Your task to perform on an android device: turn on the 12-hour format for clock Image 0: 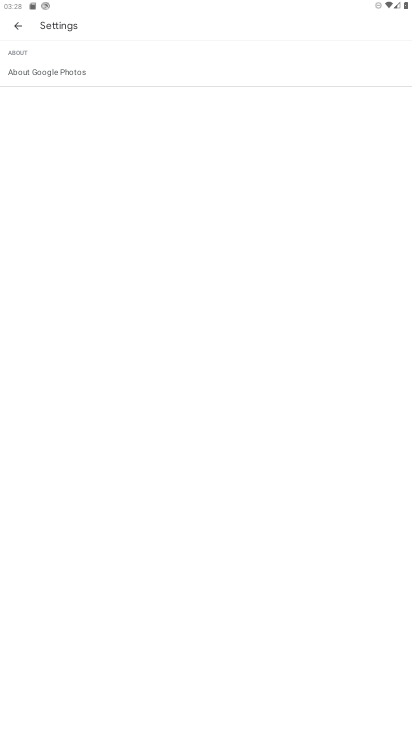
Step 0: press home button
Your task to perform on an android device: turn on the 12-hour format for clock Image 1: 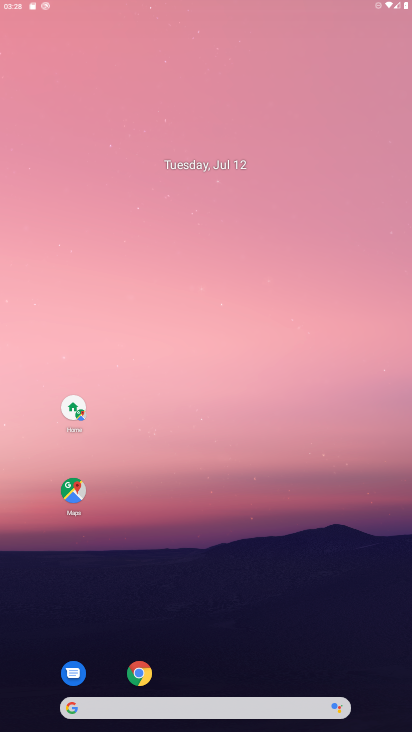
Step 1: drag from (228, 590) to (230, 279)
Your task to perform on an android device: turn on the 12-hour format for clock Image 2: 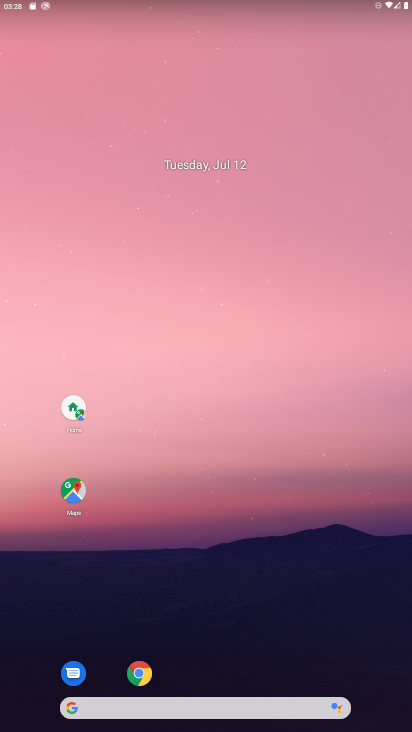
Step 2: drag from (200, 608) to (214, 314)
Your task to perform on an android device: turn on the 12-hour format for clock Image 3: 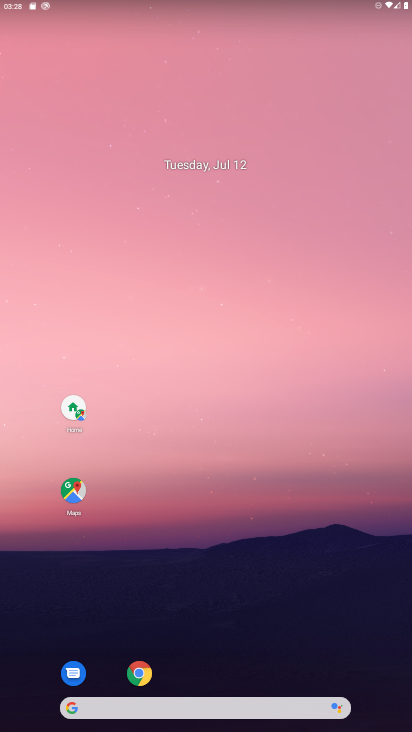
Step 3: drag from (244, 628) to (244, 252)
Your task to perform on an android device: turn on the 12-hour format for clock Image 4: 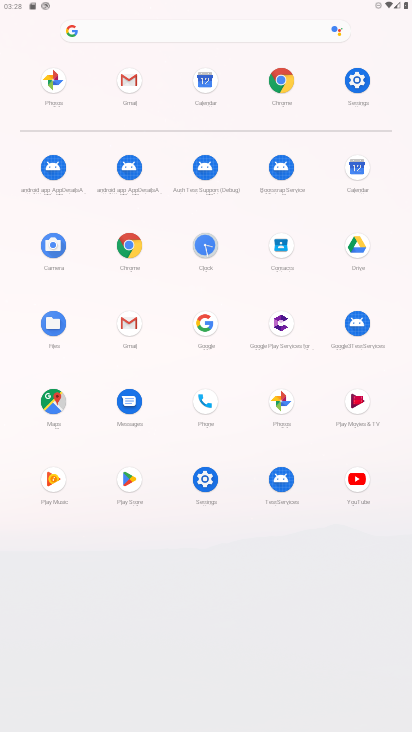
Step 4: drag from (349, 164) to (19, 250)
Your task to perform on an android device: turn on the 12-hour format for clock Image 5: 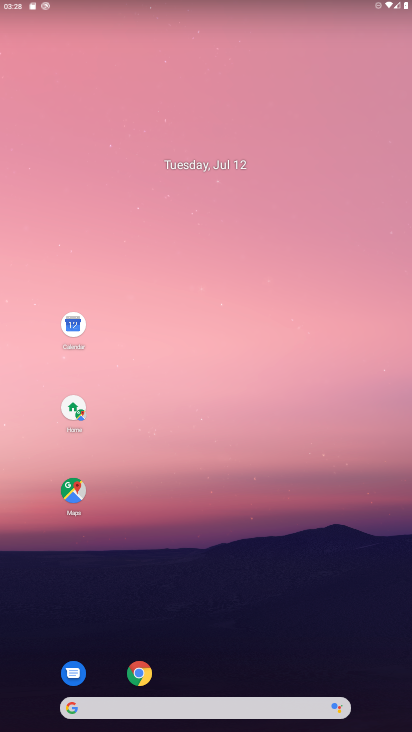
Step 5: click (142, 539)
Your task to perform on an android device: turn on the 12-hour format for clock Image 6: 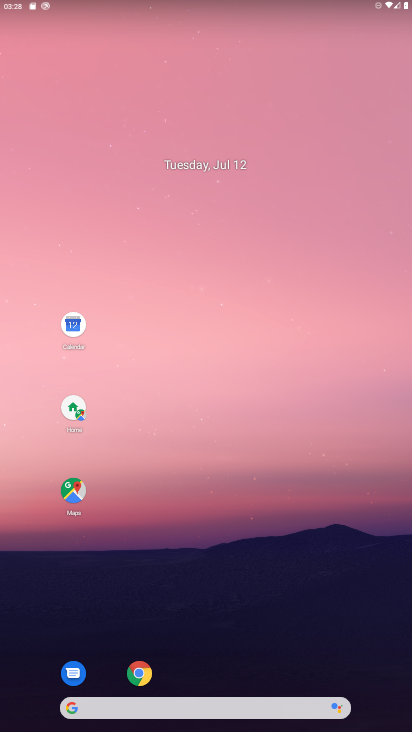
Step 6: drag from (185, 590) to (185, 185)
Your task to perform on an android device: turn on the 12-hour format for clock Image 7: 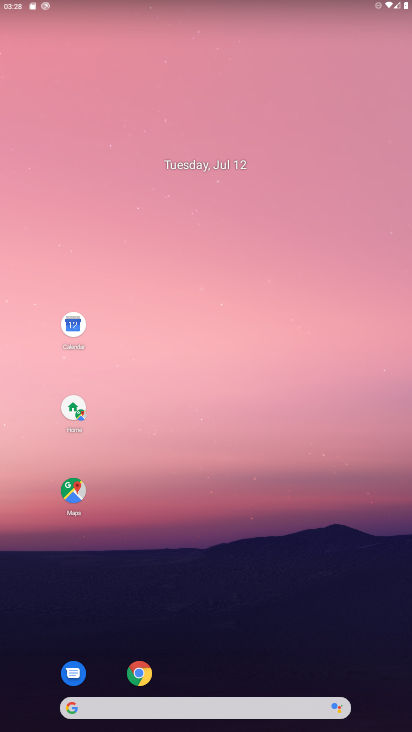
Step 7: drag from (219, 476) to (221, 299)
Your task to perform on an android device: turn on the 12-hour format for clock Image 8: 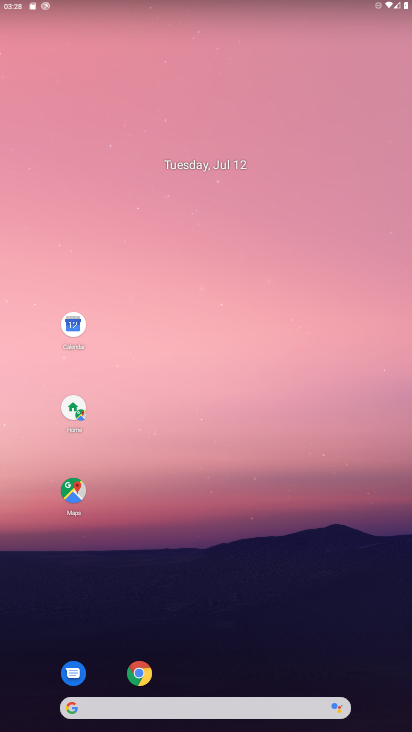
Step 8: drag from (195, 577) to (228, 231)
Your task to perform on an android device: turn on the 12-hour format for clock Image 9: 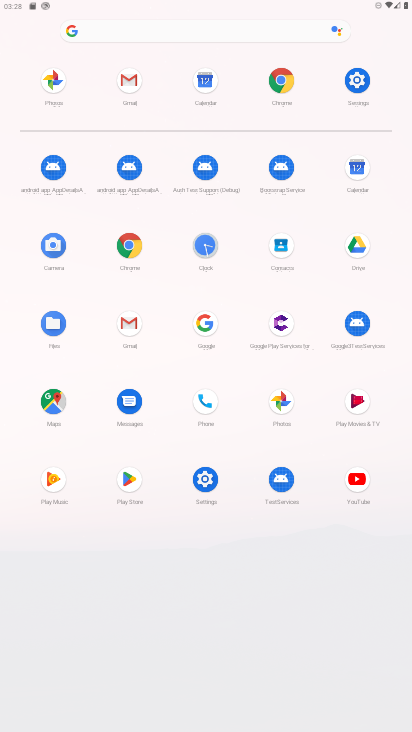
Step 9: click (210, 245)
Your task to perform on an android device: turn on the 12-hour format for clock Image 10: 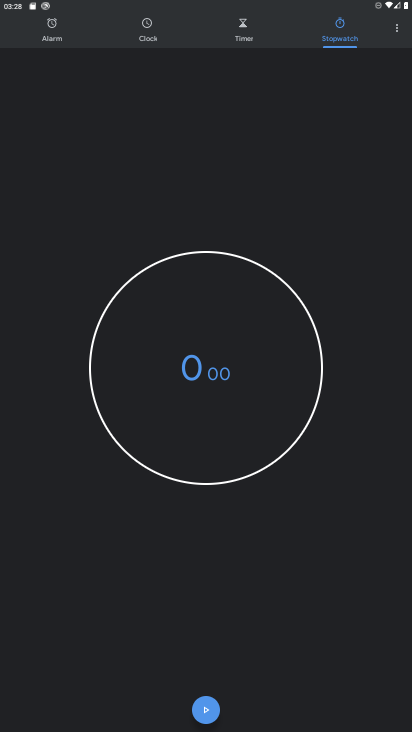
Step 10: click (398, 34)
Your task to perform on an android device: turn on the 12-hour format for clock Image 11: 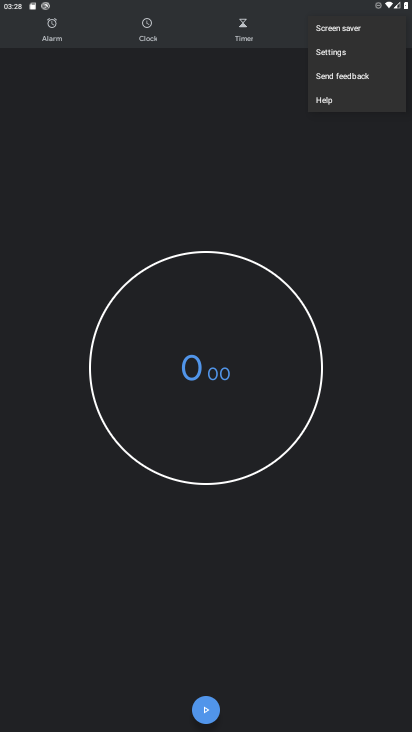
Step 11: click (334, 59)
Your task to perform on an android device: turn on the 12-hour format for clock Image 12: 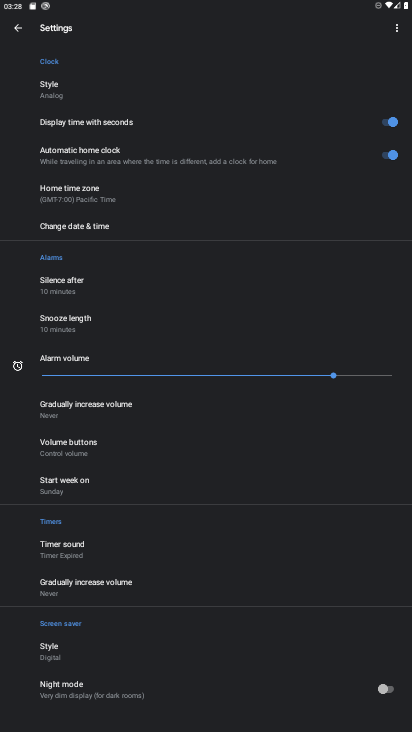
Step 12: click (86, 214)
Your task to perform on an android device: turn on the 12-hour format for clock Image 13: 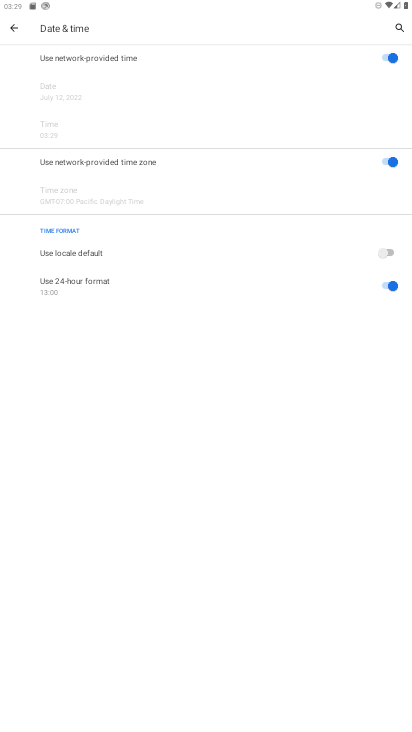
Step 13: task complete